Your task to perform on an android device: turn off smart reply in the gmail app Image 0: 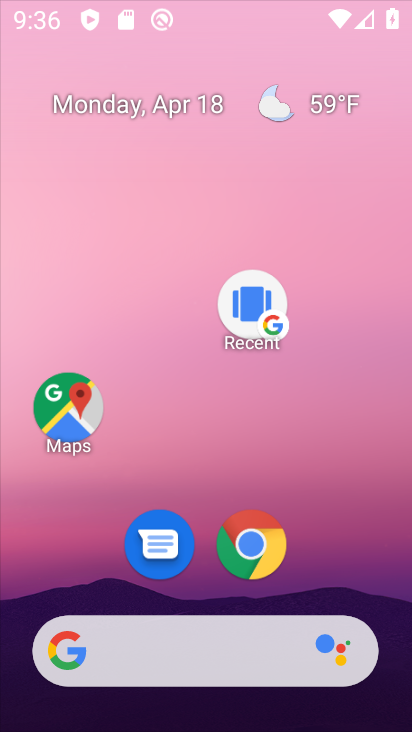
Step 0: drag from (394, 584) to (305, 120)
Your task to perform on an android device: turn off smart reply in the gmail app Image 1: 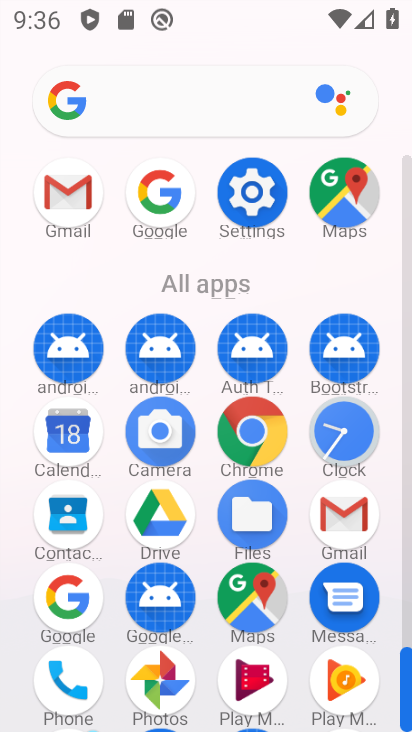
Step 1: click (82, 198)
Your task to perform on an android device: turn off smart reply in the gmail app Image 2: 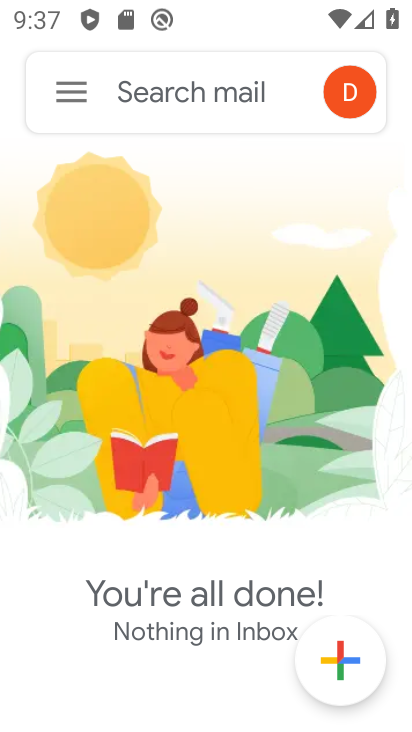
Step 2: click (68, 93)
Your task to perform on an android device: turn off smart reply in the gmail app Image 3: 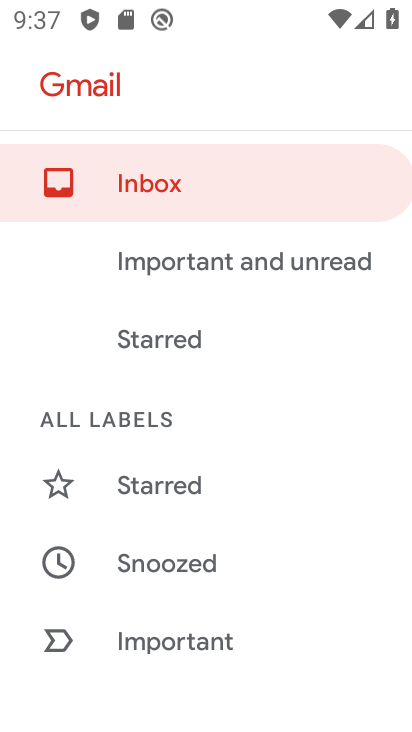
Step 3: drag from (329, 687) to (295, 236)
Your task to perform on an android device: turn off smart reply in the gmail app Image 4: 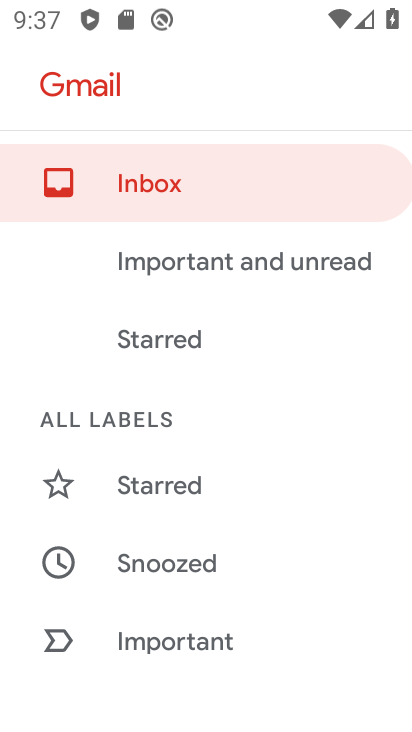
Step 4: drag from (340, 579) to (336, 50)
Your task to perform on an android device: turn off smart reply in the gmail app Image 5: 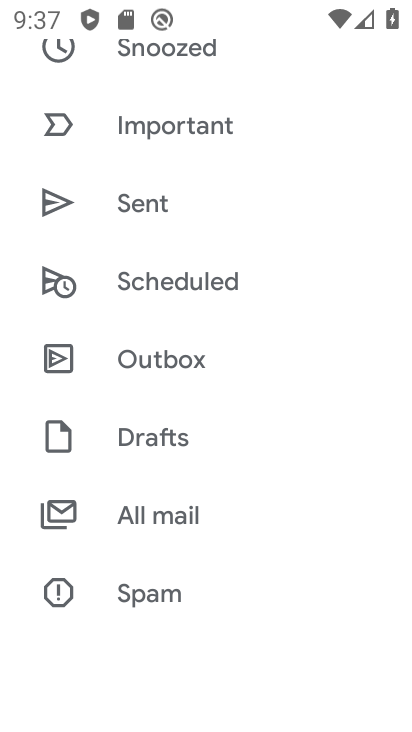
Step 5: drag from (291, 625) to (259, 261)
Your task to perform on an android device: turn off smart reply in the gmail app Image 6: 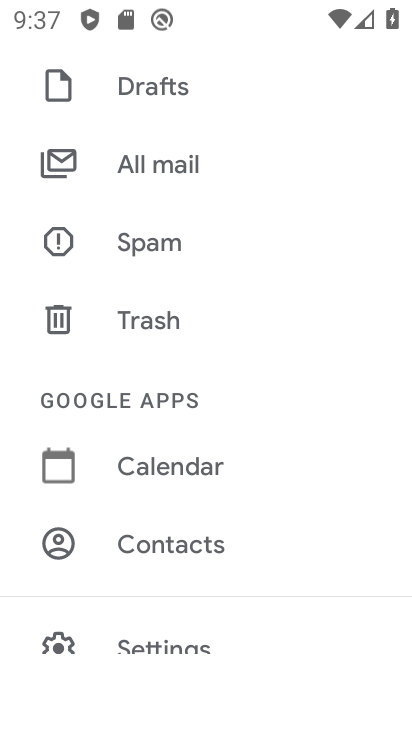
Step 6: drag from (266, 623) to (269, 291)
Your task to perform on an android device: turn off smart reply in the gmail app Image 7: 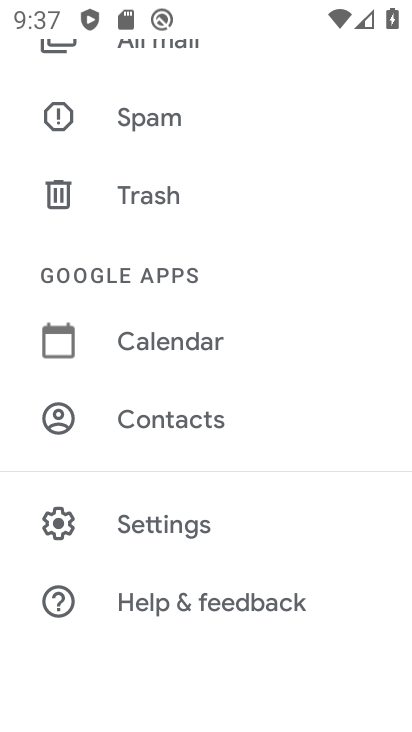
Step 7: click (267, 526)
Your task to perform on an android device: turn off smart reply in the gmail app Image 8: 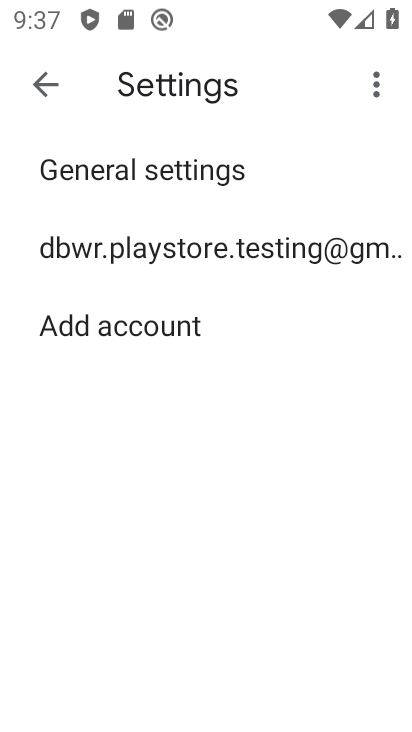
Step 8: click (289, 261)
Your task to perform on an android device: turn off smart reply in the gmail app Image 9: 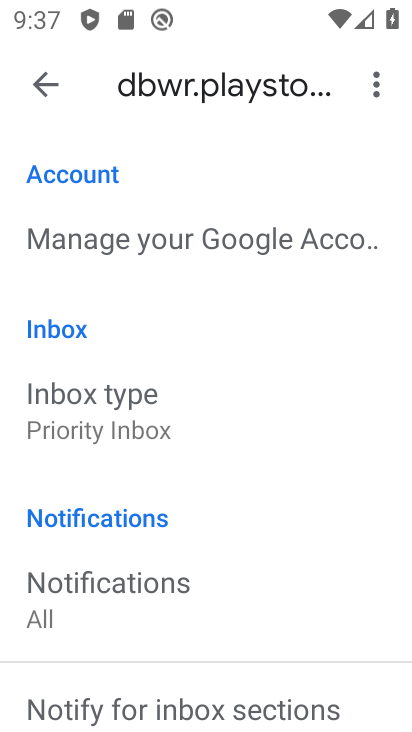
Step 9: drag from (273, 574) to (295, 19)
Your task to perform on an android device: turn off smart reply in the gmail app Image 10: 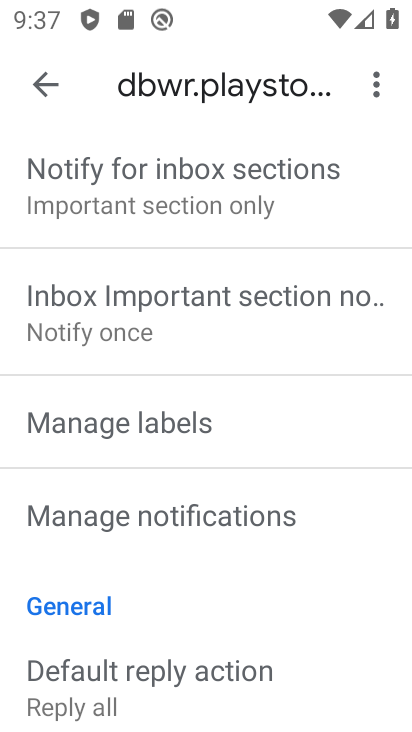
Step 10: drag from (257, 665) to (226, 310)
Your task to perform on an android device: turn off smart reply in the gmail app Image 11: 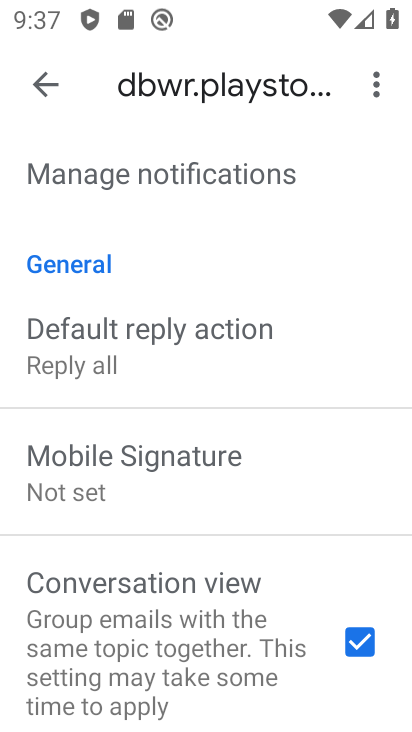
Step 11: drag from (221, 680) to (248, 218)
Your task to perform on an android device: turn off smart reply in the gmail app Image 12: 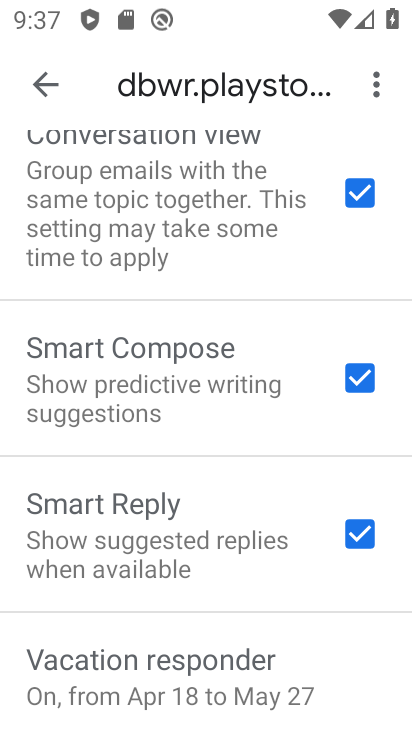
Step 12: click (344, 539)
Your task to perform on an android device: turn off smart reply in the gmail app Image 13: 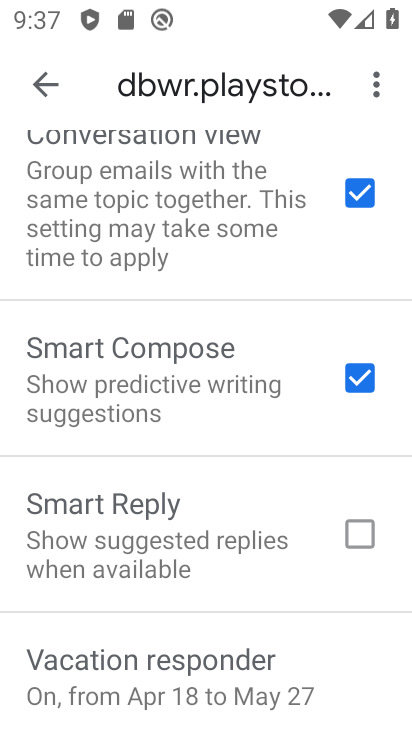
Step 13: task complete